Your task to perform on an android device: toggle wifi Image 0: 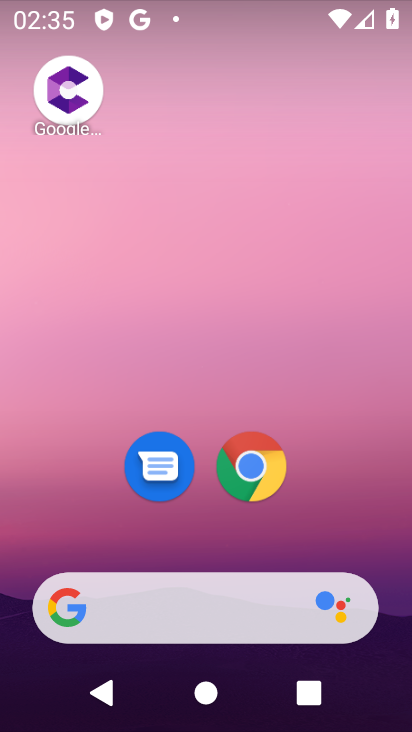
Step 0: drag from (311, 529) to (270, 188)
Your task to perform on an android device: toggle wifi Image 1: 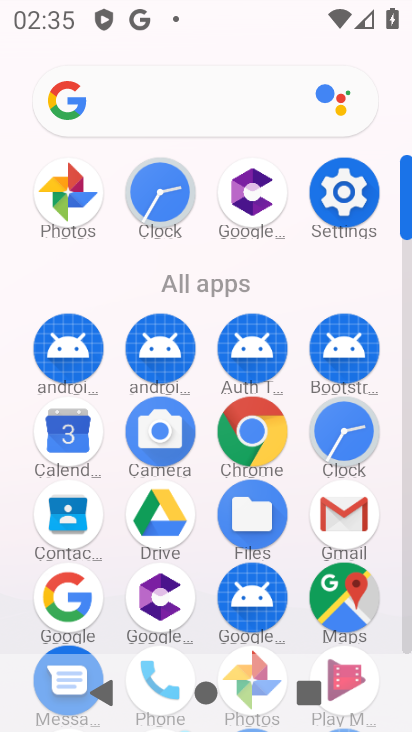
Step 1: click (336, 188)
Your task to perform on an android device: toggle wifi Image 2: 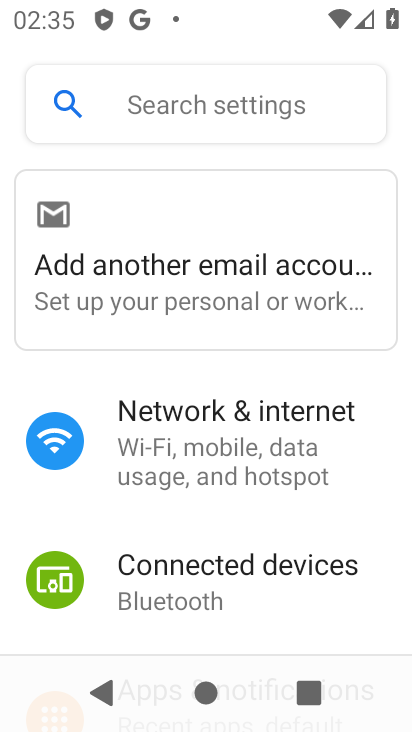
Step 2: click (192, 473)
Your task to perform on an android device: toggle wifi Image 3: 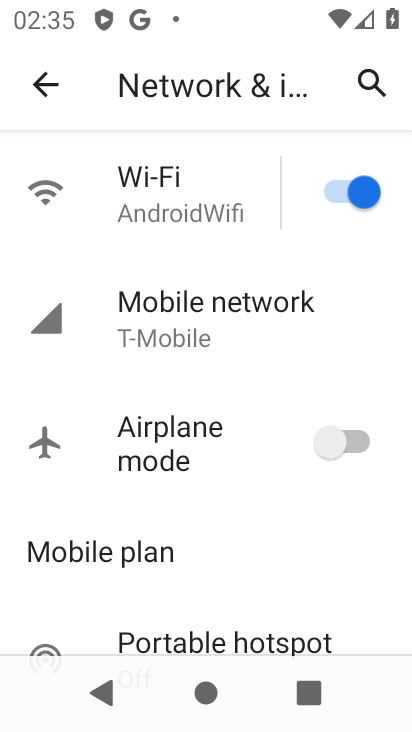
Step 3: click (336, 190)
Your task to perform on an android device: toggle wifi Image 4: 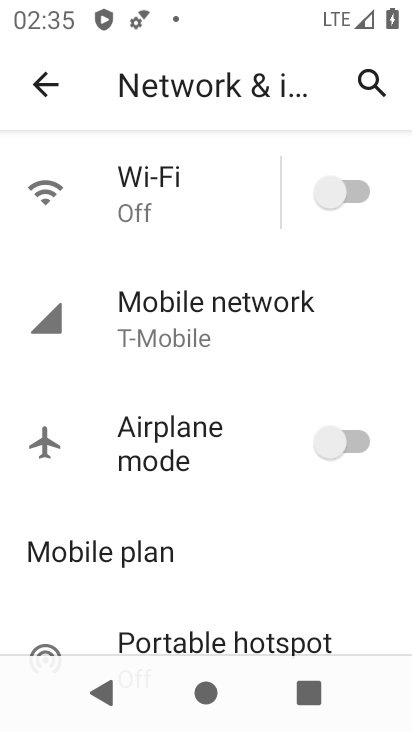
Step 4: task complete